Your task to perform on an android device: Open settings on Google Maps Image 0: 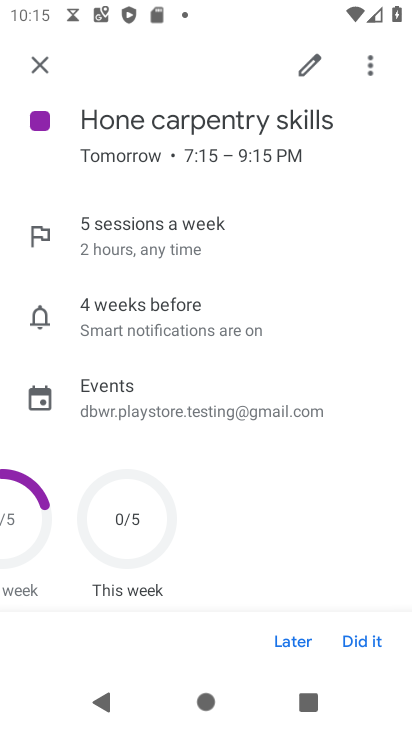
Step 0: press home button
Your task to perform on an android device: Open settings on Google Maps Image 1: 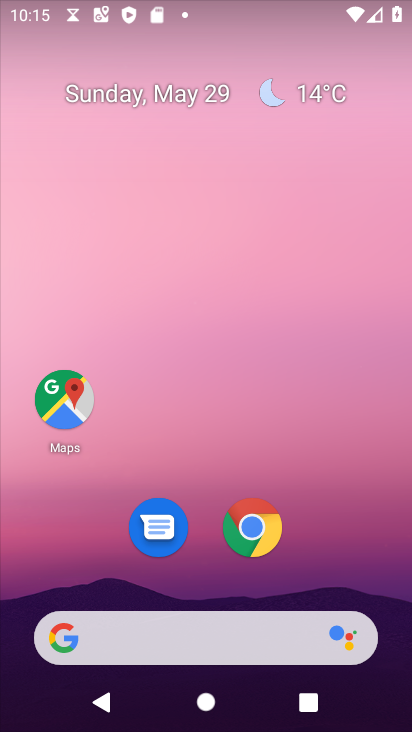
Step 1: click (70, 405)
Your task to perform on an android device: Open settings on Google Maps Image 2: 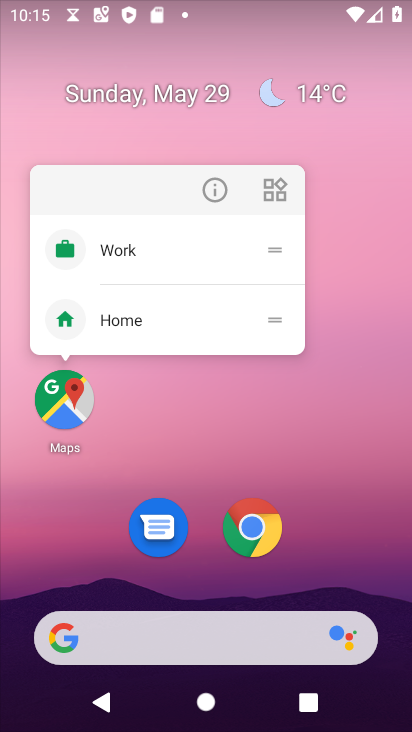
Step 2: click (65, 411)
Your task to perform on an android device: Open settings on Google Maps Image 3: 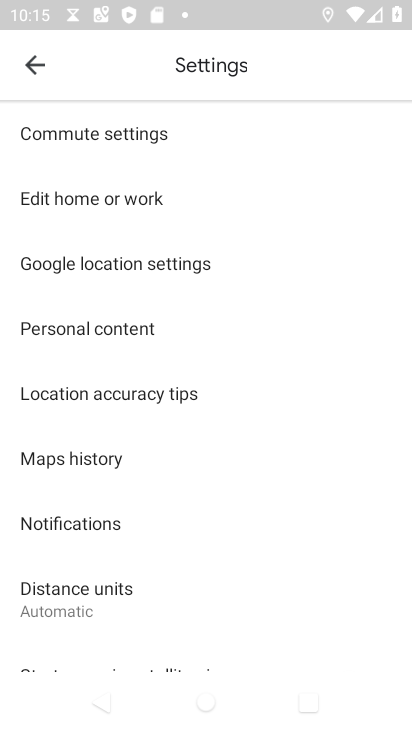
Step 3: task complete